Your task to perform on an android device: Search for Mexican restaurants on Maps Image 0: 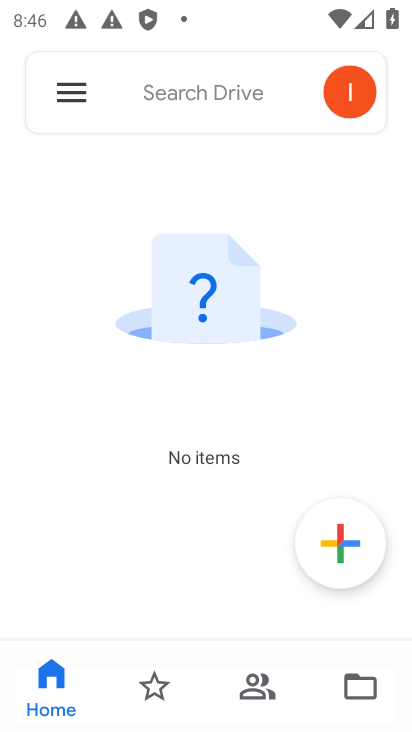
Step 0: press home button
Your task to perform on an android device: Search for Mexican restaurants on Maps Image 1: 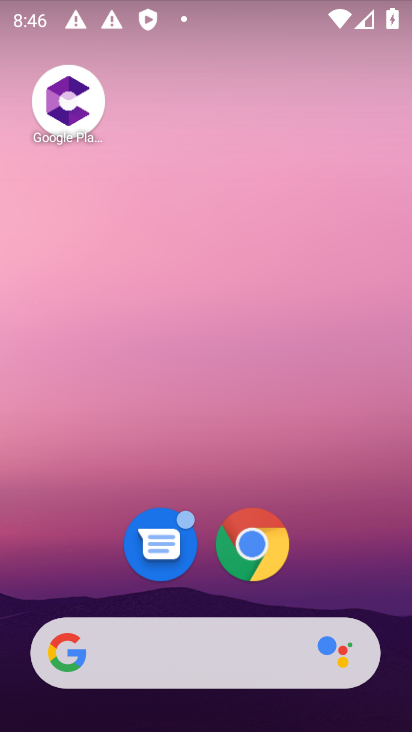
Step 1: drag from (285, 323) to (307, 30)
Your task to perform on an android device: Search for Mexican restaurants on Maps Image 2: 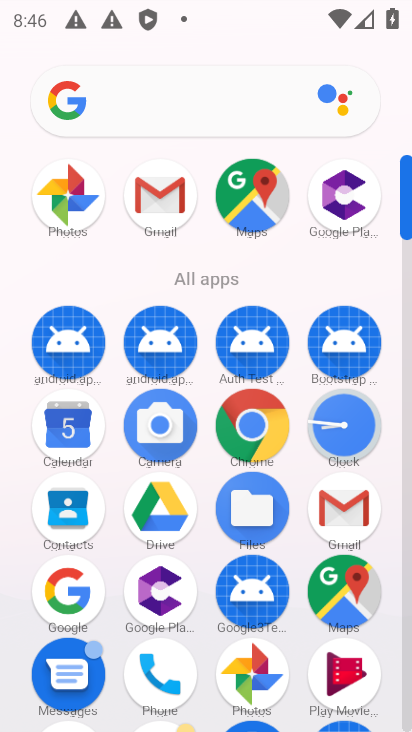
Step 2: click (255, 201)
Your task to perform on an android device: Search for Mexican restaurants on Maps Image 3: 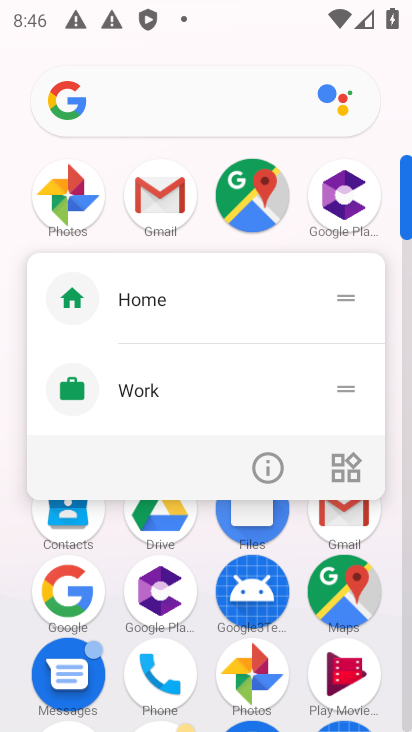
Step 3: click (255, 200)
Your task to perform on an android device: Search for Mexican restaurants on Maps Image 4: 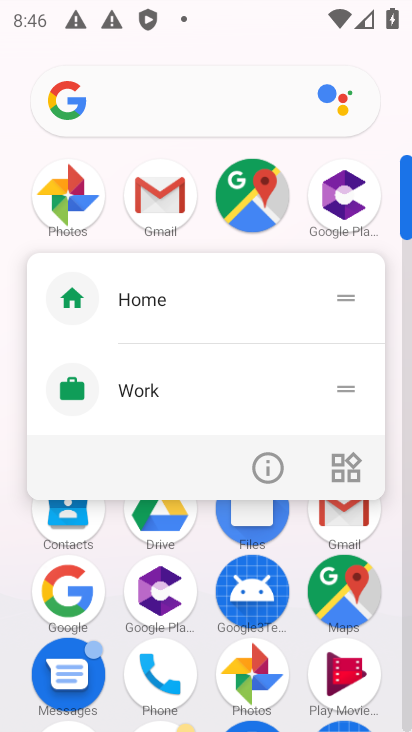
Step 4: click (255, 200)
Your task to perform on an android device: Search for Mexican restaurants on Maps Image 5: 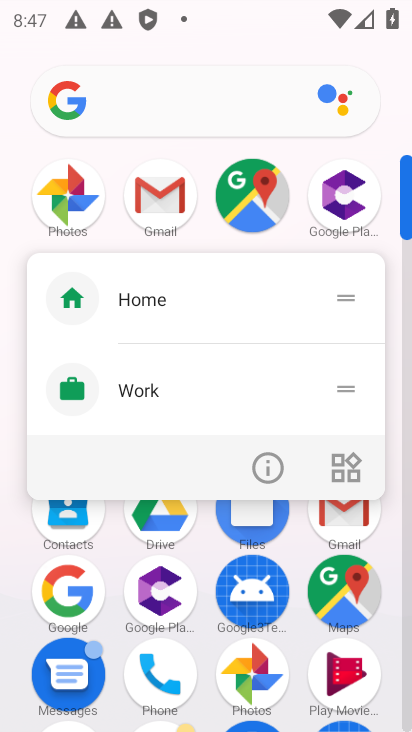
Step 5: click (265, 211)
Your task to perform on an android device: Search for Mexican restaurants on Maps Image 6: 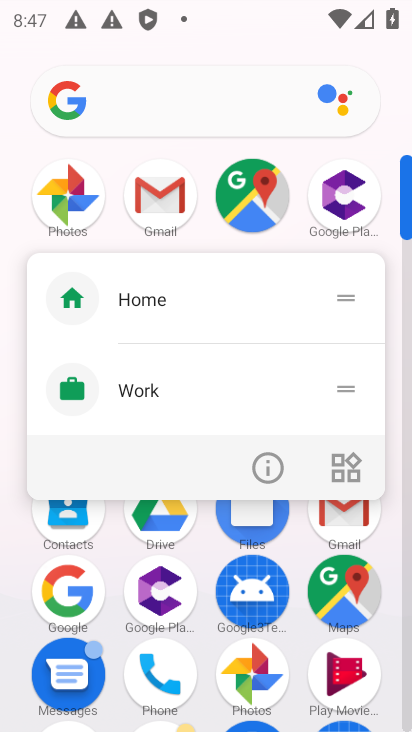
Step 6: click (259, 209)
Your task to perform on an android device: Search for Mexican restaurants on Maps Image 7: 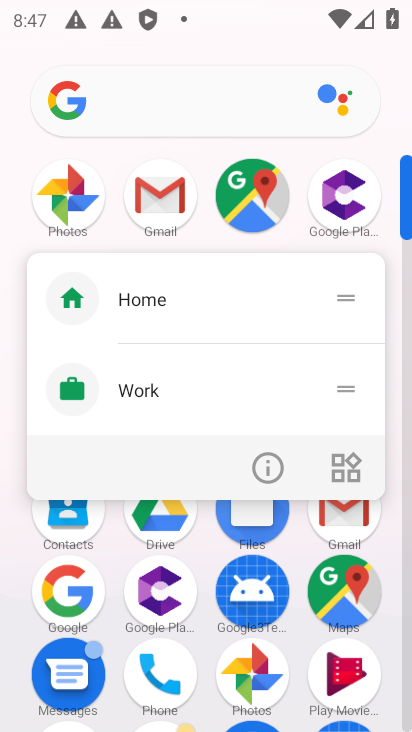
Step 7: click (255, 207)
Your task to perform on an android device: Search for Mexican restaurants on Maps Image 8: 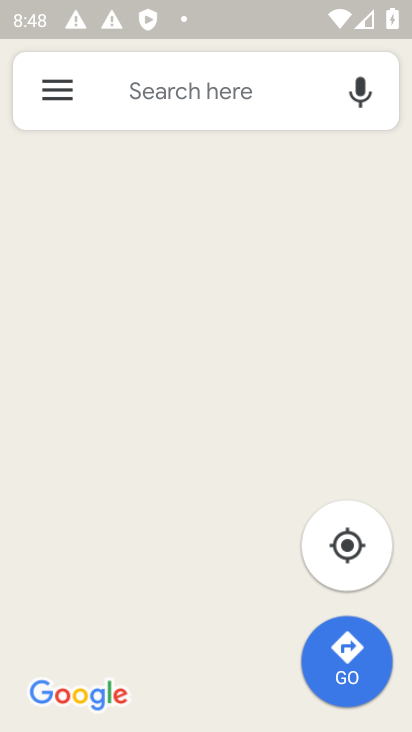
Step 8: click (242, 102)
Your task to perform on an android device: Search for Mexican restaurants on Maps Image 9: 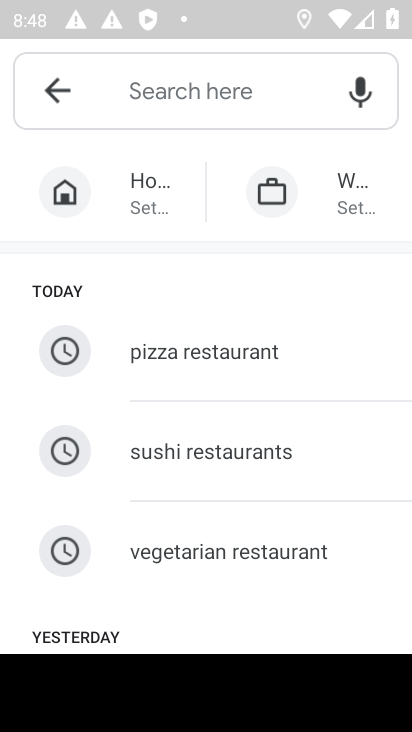
Step 9: drag from (282, 561) to (311, 156)
Your task to perform on an android device: Search for Mexican restaurants on Maps Image 10: 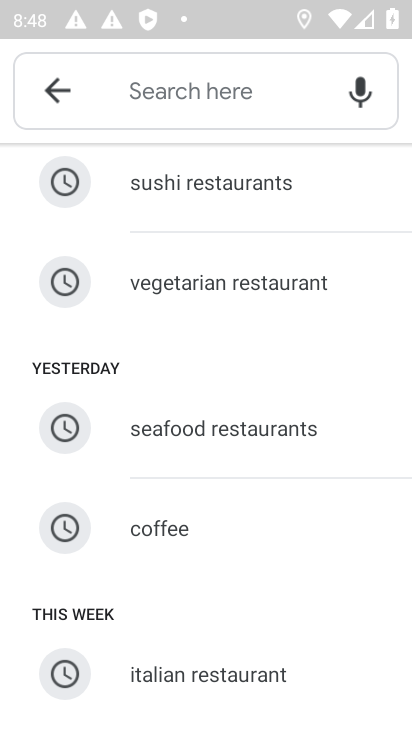
Step 10: drag from (215, 493) to (236, 194)
Your task to perform on an android device: Search for Mexican restaurants on Maps Image 11: 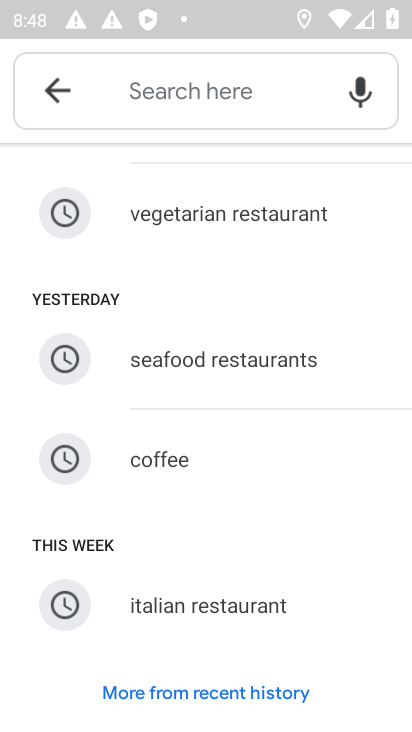
Step 11: type "Mexican restaurants"
Your task to perform on an android device: Search for Mexican restaurants on Maps Image 12: 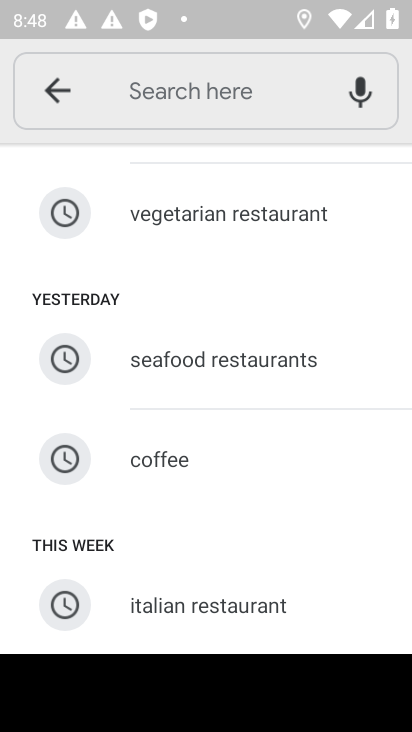
Step 12: click (228, 93)
Your task to perform on an android device: Search for Mexican restaurants on Maps Image 13: 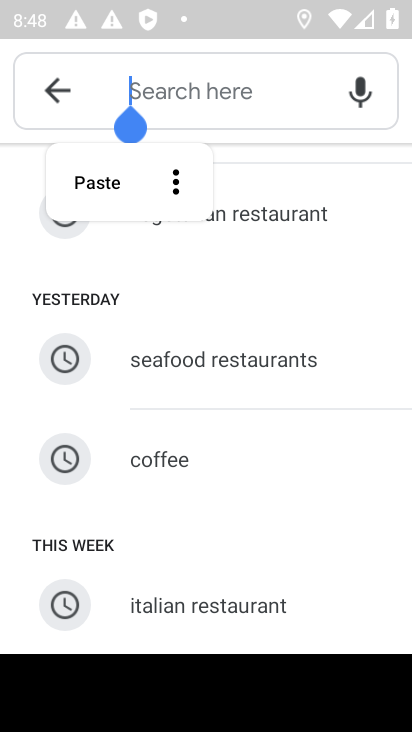
Step 13: click (105, 186)
Your task to perform on an android device: Search for Mexican restaurants on Maps Image 14: 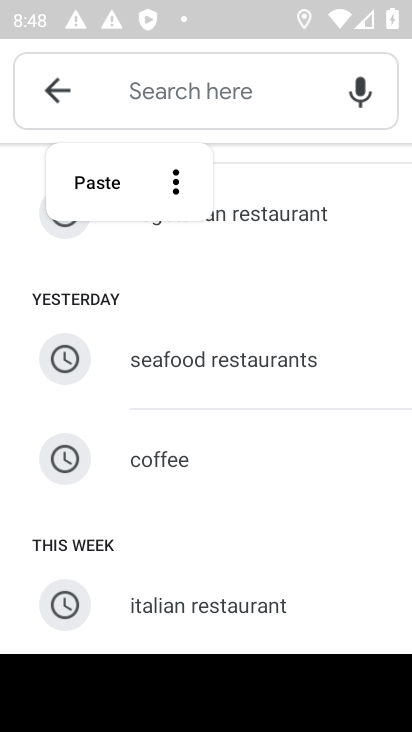
Step 14: click (178, 198)
Your task to perform on an android device: Search for Mexican restaurants on Maps Image 15: 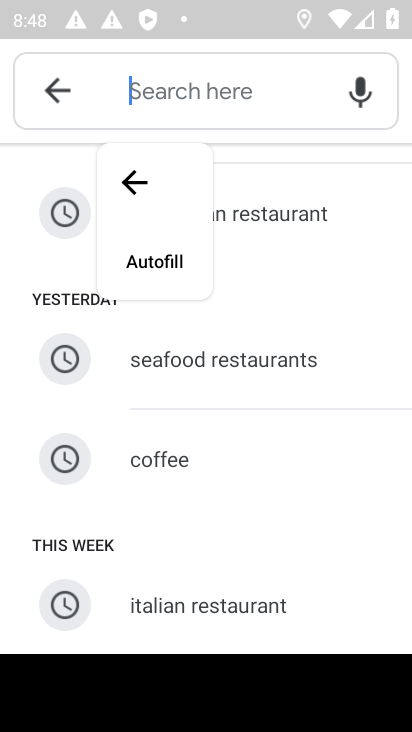
Step 15: click (155, 242)
Your task to perform on an android device: Search for Mexican restaurants on Maps Image 16: 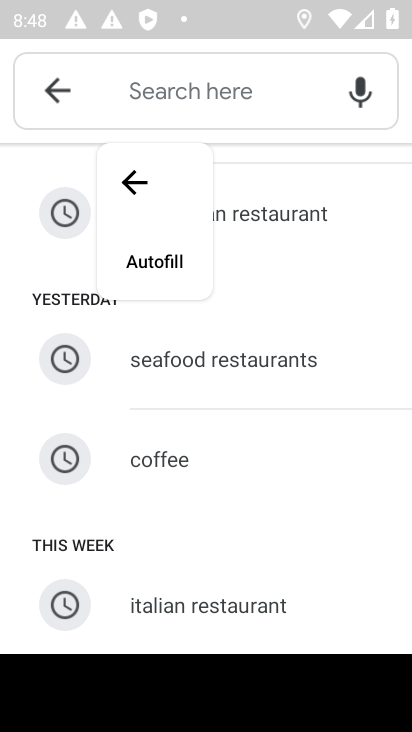
Step 16: click (166, 263)
Your task to perform on an android device: Search for Mexican restaurants on Maps Image 17: 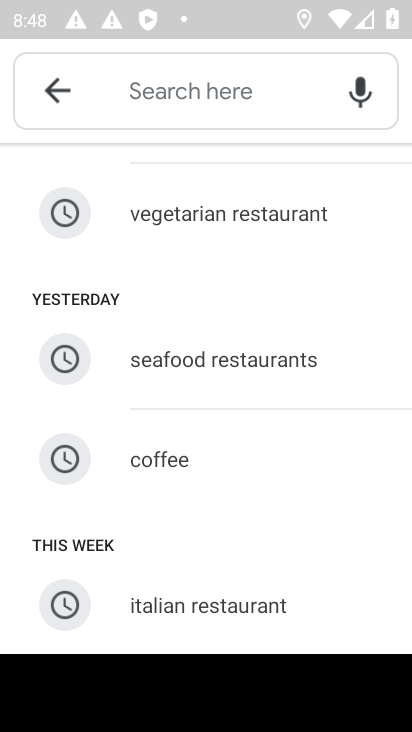
Step 17: type "Mexican restaurants"
Your task to perform on an android device: Search for Mexican restaurants on Maps Image 18: 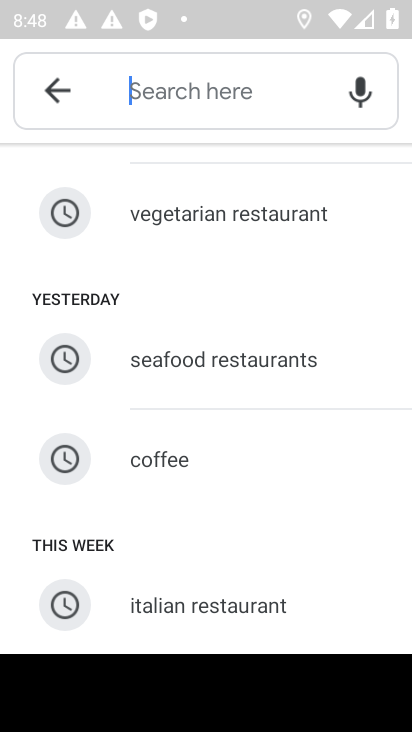
Step 18: click (209, 86)
Your task to perform on an android device: Search for Mexican restaurants on Maps Image 19: 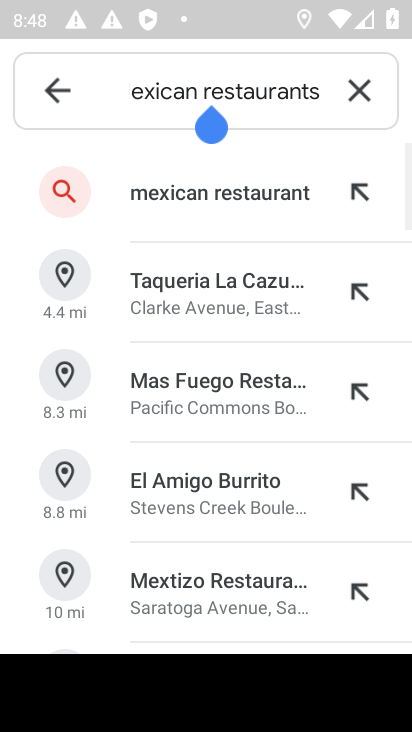
Step 19: click (271, 188)
Your task to perform on an android device: Search for Mexican restaurants on Maps Image 20: 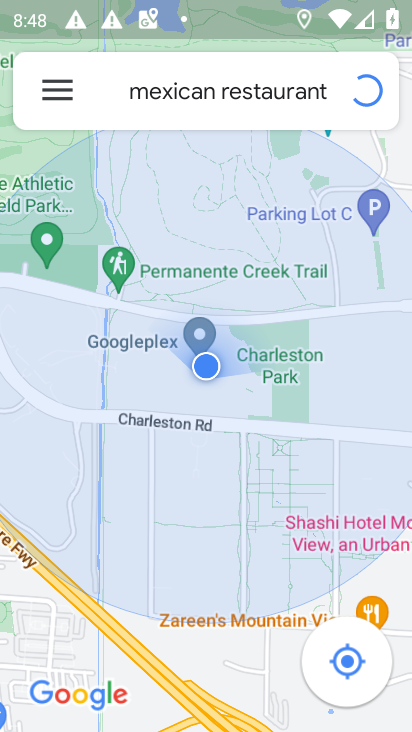
Step 20: task complete